Your task to perform on an android device: Open privacy settings Image 0: 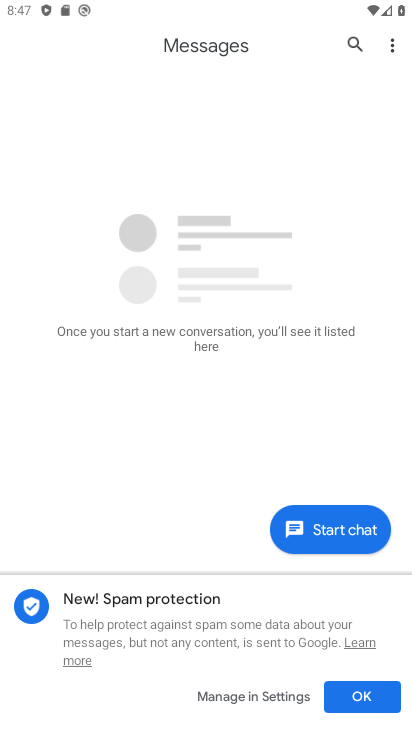
Step 0: press home button
Your task to perform on an android device: Open privacy settings Image 1: 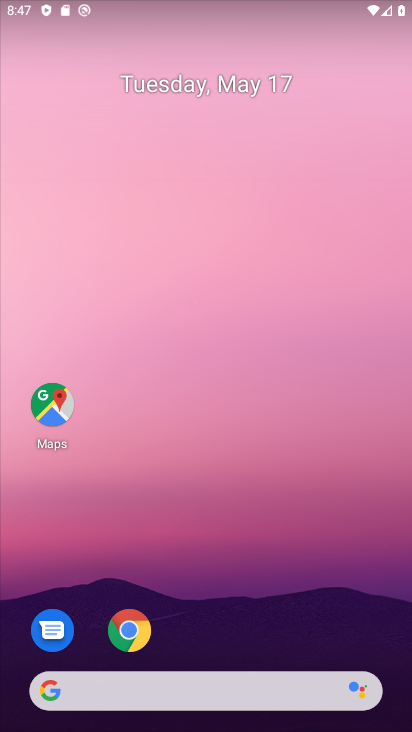
Step 1: drag from (355, 609) to (367, 54)
Your task to perform on an android device: Open privacy settings Image 2: 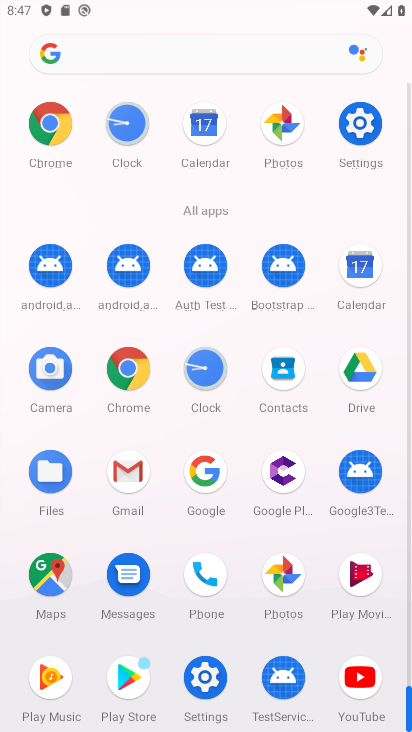
Step 2: click (369, 136)
Your task to perform on an android device: Open privacy settings Image 3: 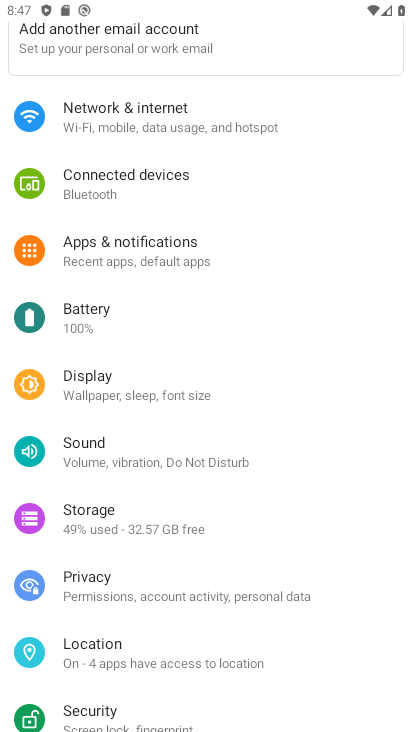
Step 3: drag from (342, 533) to (336, 330)
Your task to perform on an android device: Open privacy settings Image 4: 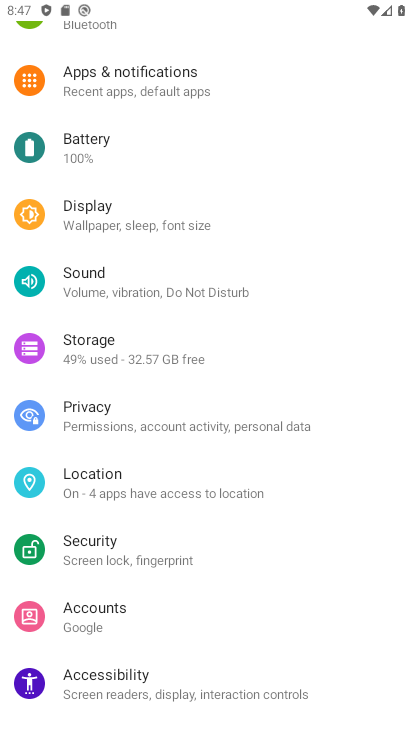
Step 4: drag from (318, 555) to (321, 399)
Your task to perform on an android device: Open privacy settings Image 5: 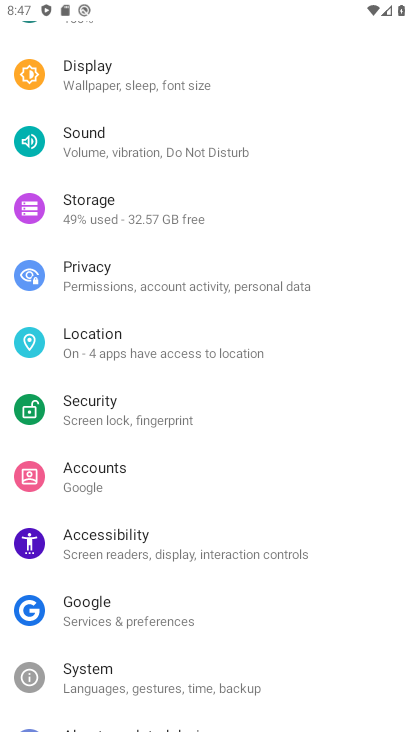
Step 5: drag from (289, 621) to (289, 445)
Your task to perform on an android device: Open privacy settings Image 6: 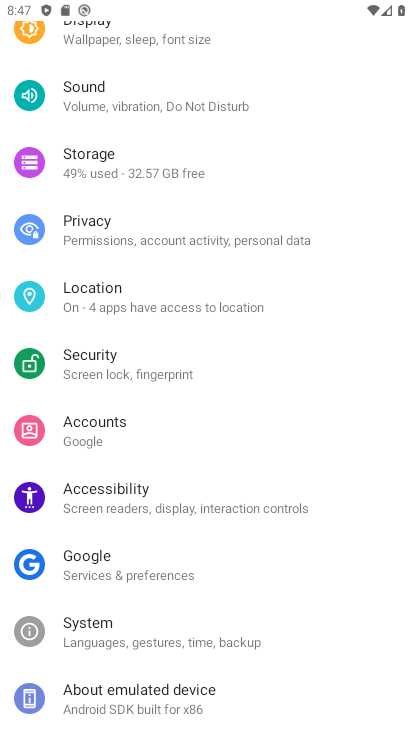
Step 6: drag from (325, 288) to (301, 511)
Your task to perform on an android device: Open privacy settings Image 7: 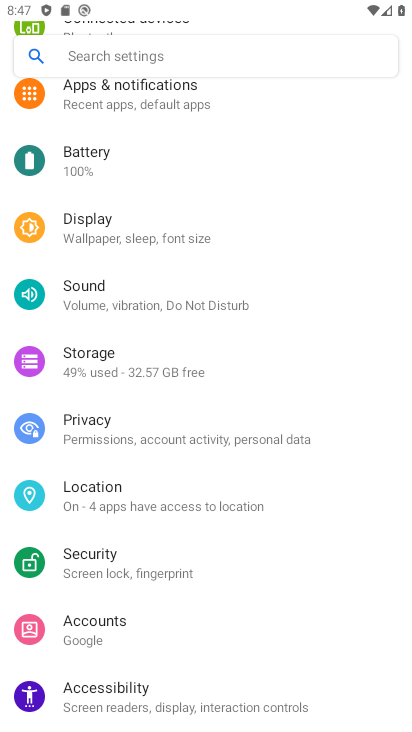
Step 7: drag from (301, 249) to (298, 418)
Your task to perform on an android device: Open privacy settings Image 8: 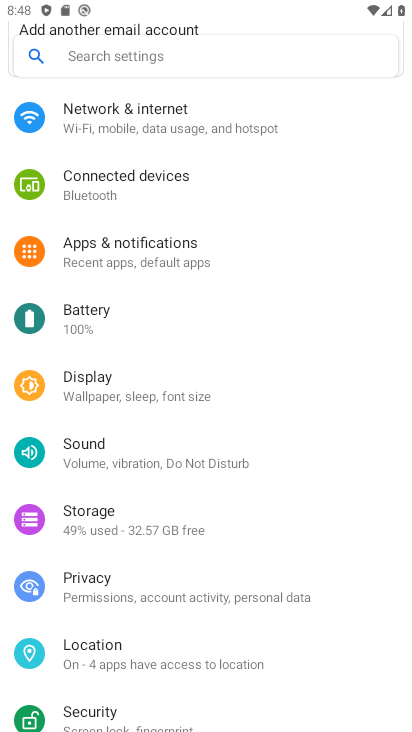
Step 8: drag from (303, 648) to (317, 428)
Your task to perform on an android device: Open privacy settings Image 9: 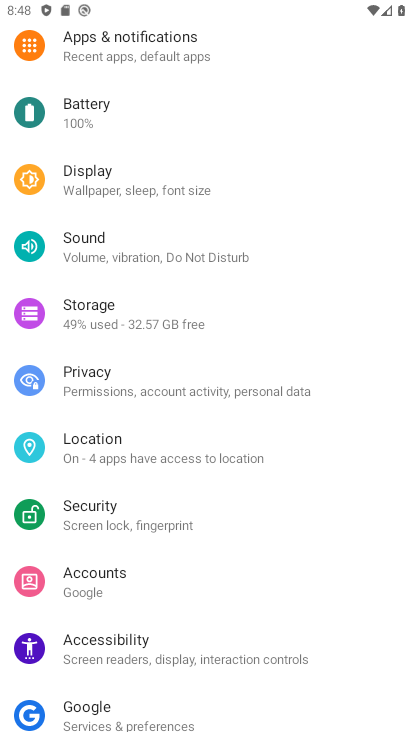
Step 9: click (226, 377)
Your task to perform on an android device: Open privacy settings Image 10: 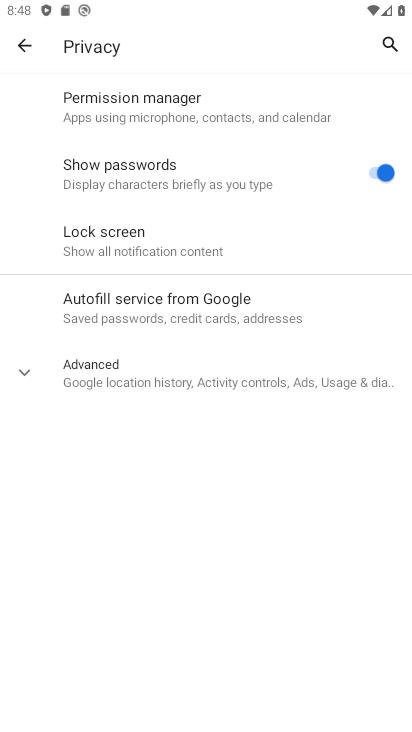
Step 10: task complete